Your task to perform on an android device: turn off data saver in the chrome app Image 0: 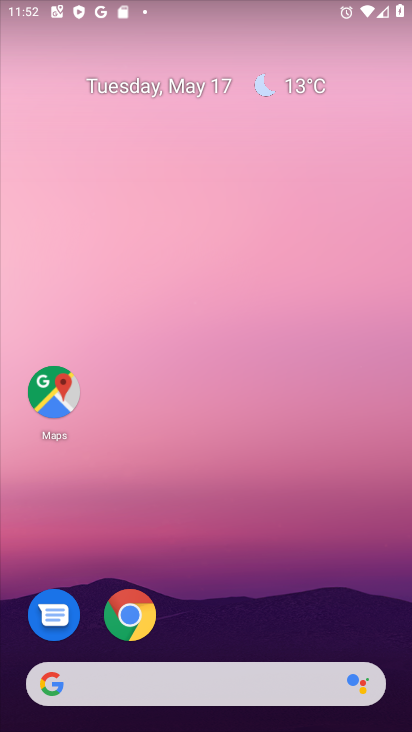
Step 0: click (132, 614)
Your task to perform on an android device: turn off data saver in the chrome app Image 1: 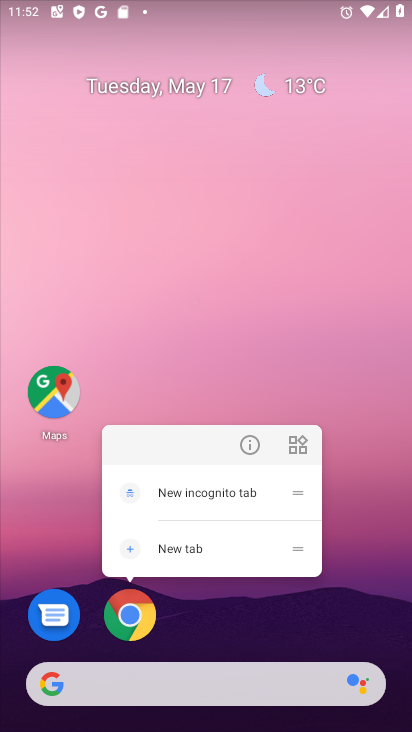
Step 1: click (133, 614)
Your task to perform on an android device: turn off data saver in the chrome app Image 2: 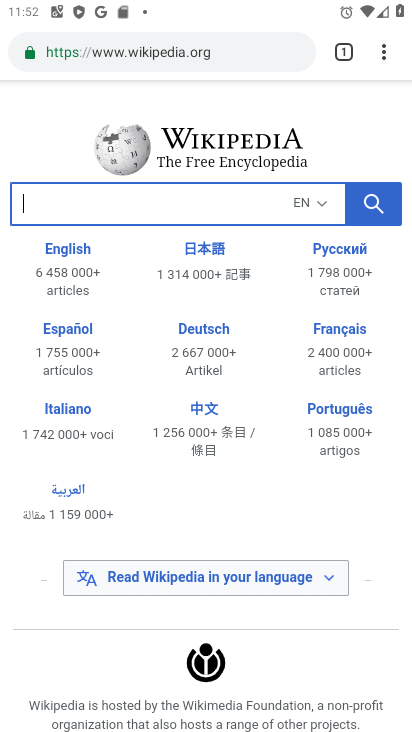
Step 2: drag from (383, 43) to (241, 633)
Your task to perform on an android device: turn off data saver in the chrome app Image 3: 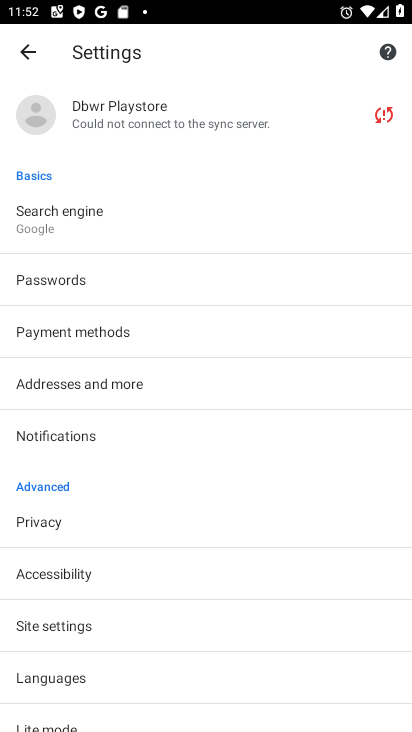
Step 3: drag from (147, 592) to (192, 196)
Your task to perform on an android device: turn off data saver in the chrome app Image 4: 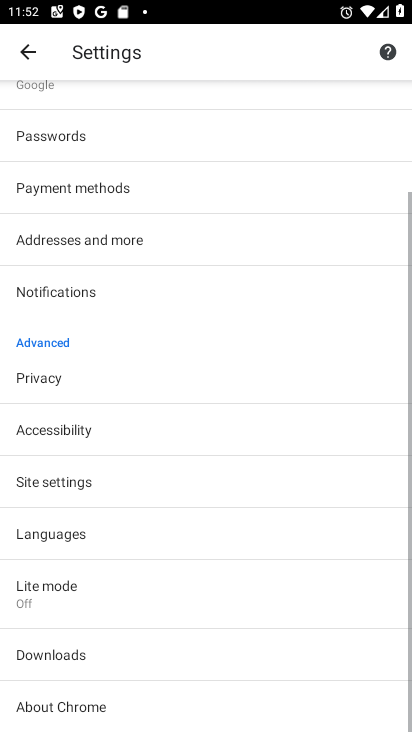
Step 4: click (99, 476)
Your task to perform on an android device: turn off data saver in the chrome app Image 5: 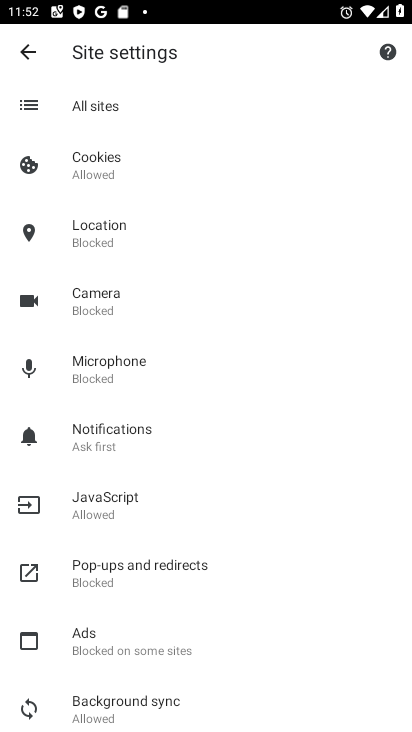
Step 5: click (169, 500)
Your task to perform on an android device: turn off data saver in the chrome app Image 6: 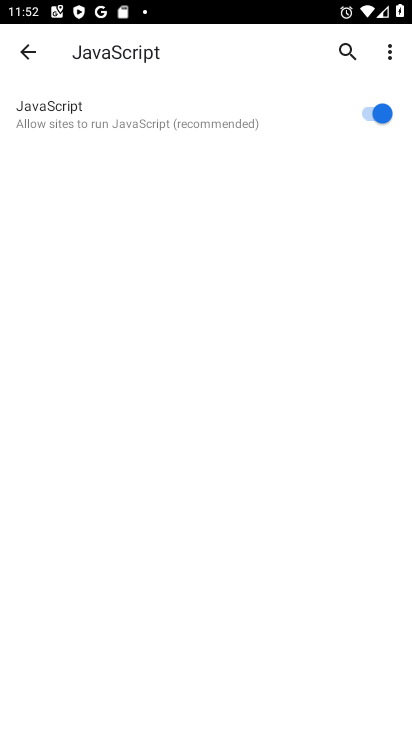
Step 6: click (387, 122)
Your task to perform on an android device: turn off data saver in the chrome app Image 7: 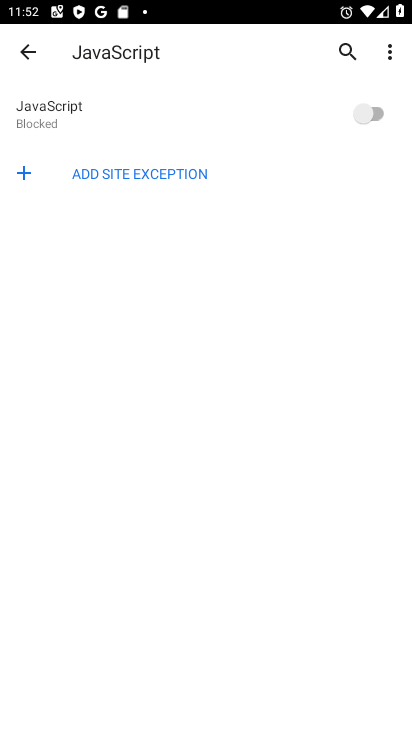
Step 7: task complete